Your task to perform on an android device: Open the stopwatch Image 0: 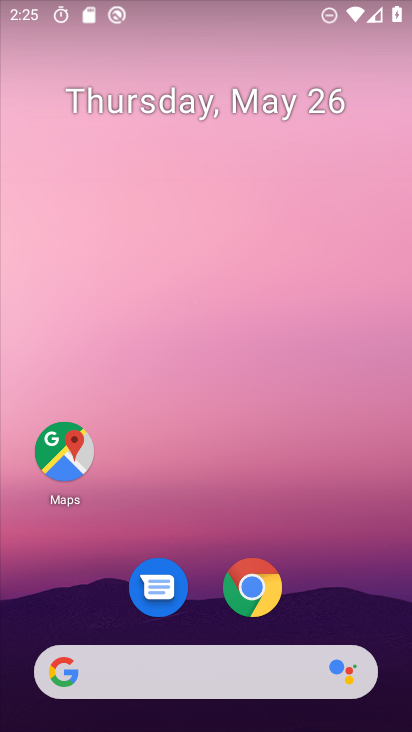
Step 0: drag from (318, 548) to (334, 217)
Your task to perform on an android device: Open the stopwatch Image 1: 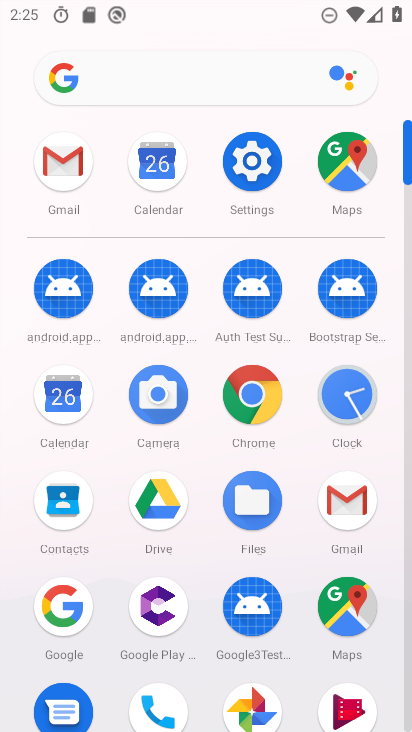
Step 1: click (349, 394)
Your task to perform on an android device: Open the stopwatch Image 2: 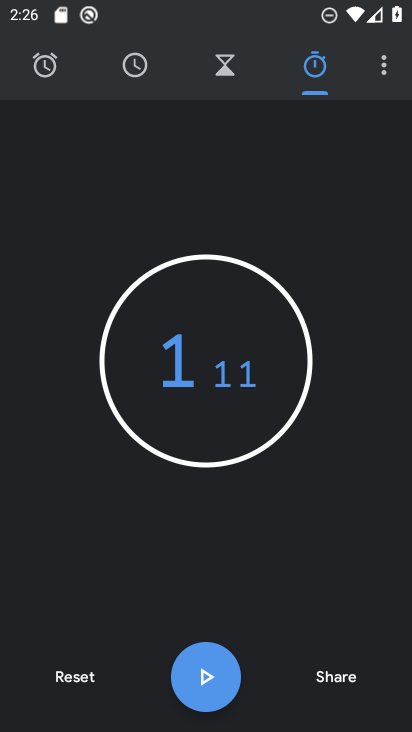
Step 2: task complete